Your task to perform on an android device: Open notification settings Image 0: 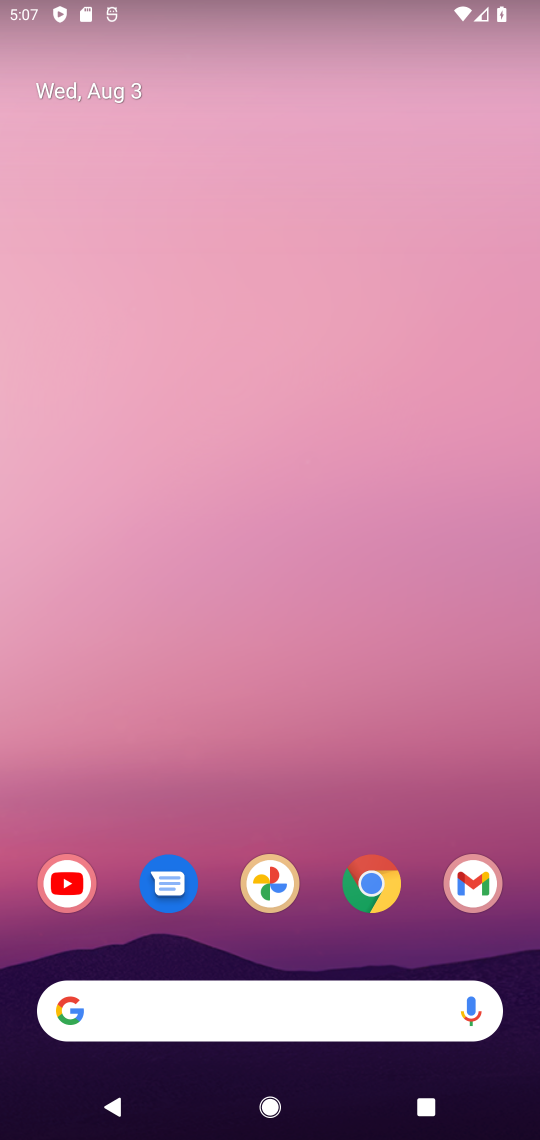
Step 0: drag from (239, 791) to (239, 239)
Your task to perform on an android device: Open notification settings Image 1: 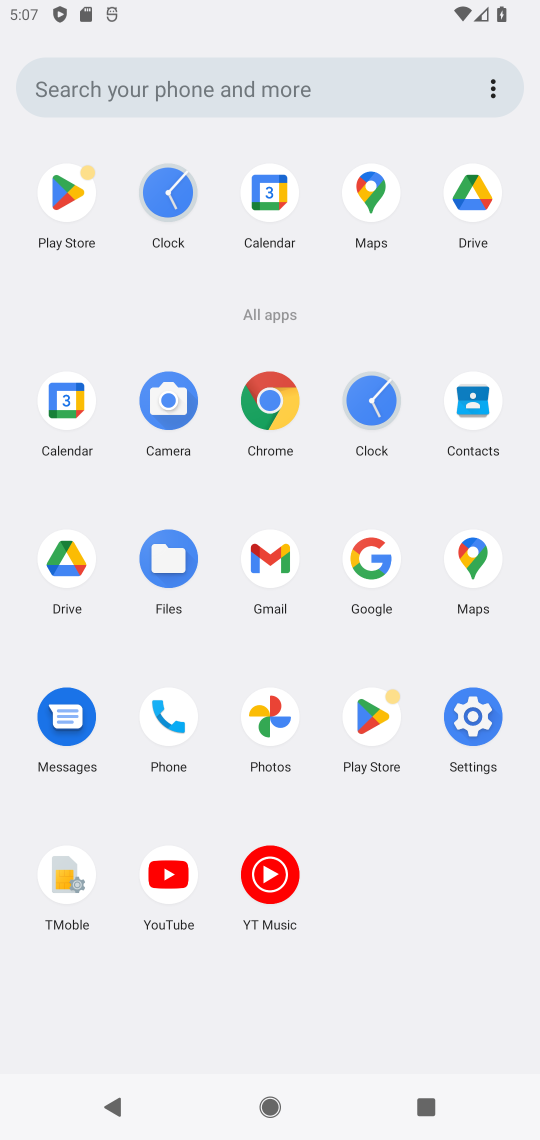
Step 1: click (460, 721)
Your task to perform on an android device: Open notification settings Image 2: 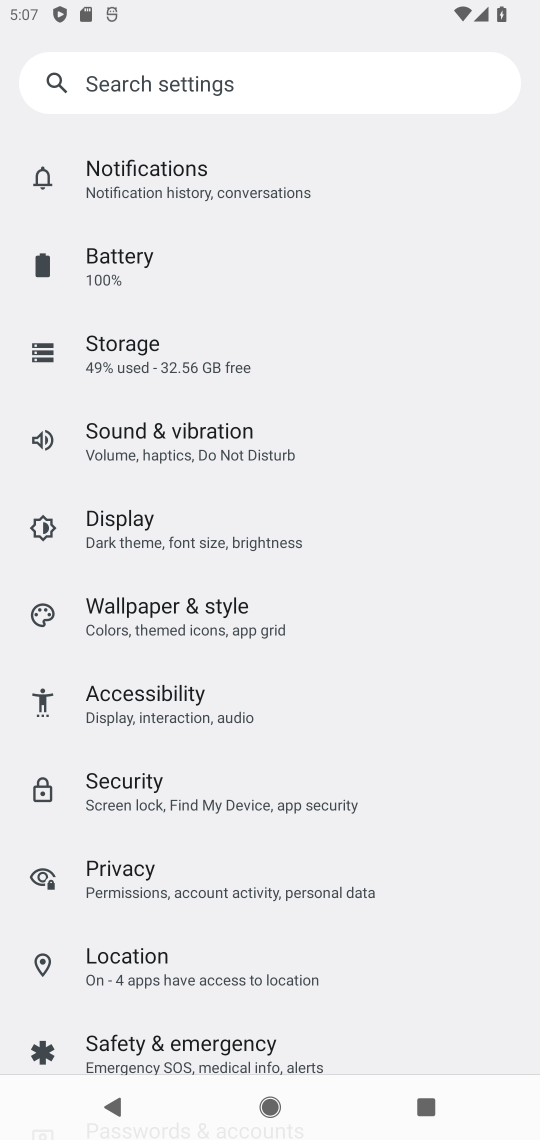
Step 2: click (100, 176)
Your task to perform on an android device: Open notification settings Image 3: 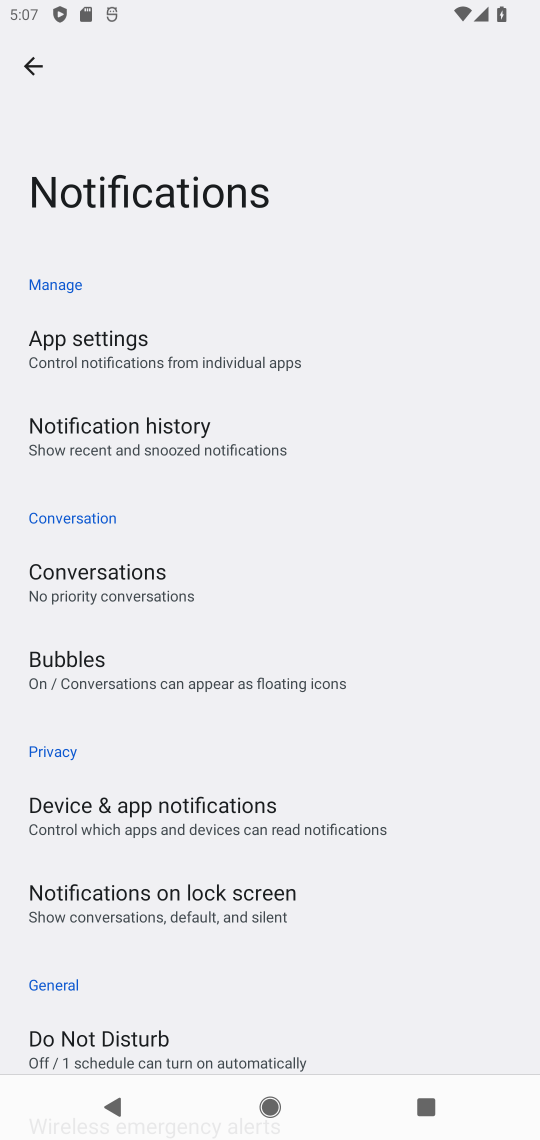
Step 3: task complete